Your task to perform on an android device: allow cookies in the chrome app Image 0: 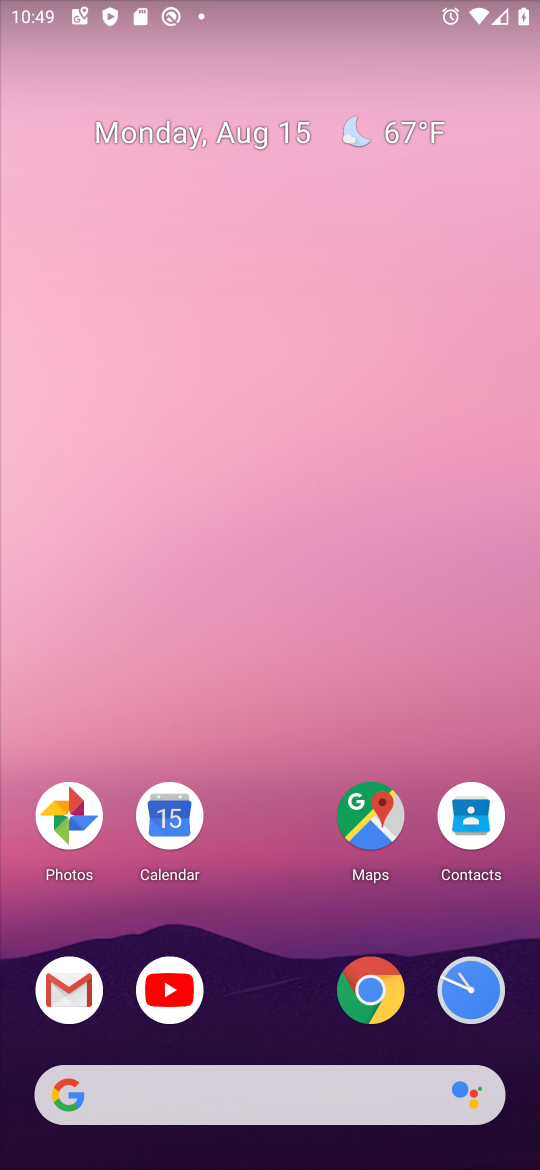
Step 0: click (370, 990)
Your task to perform on an android device: allow cookies in the chrome app Image 1: 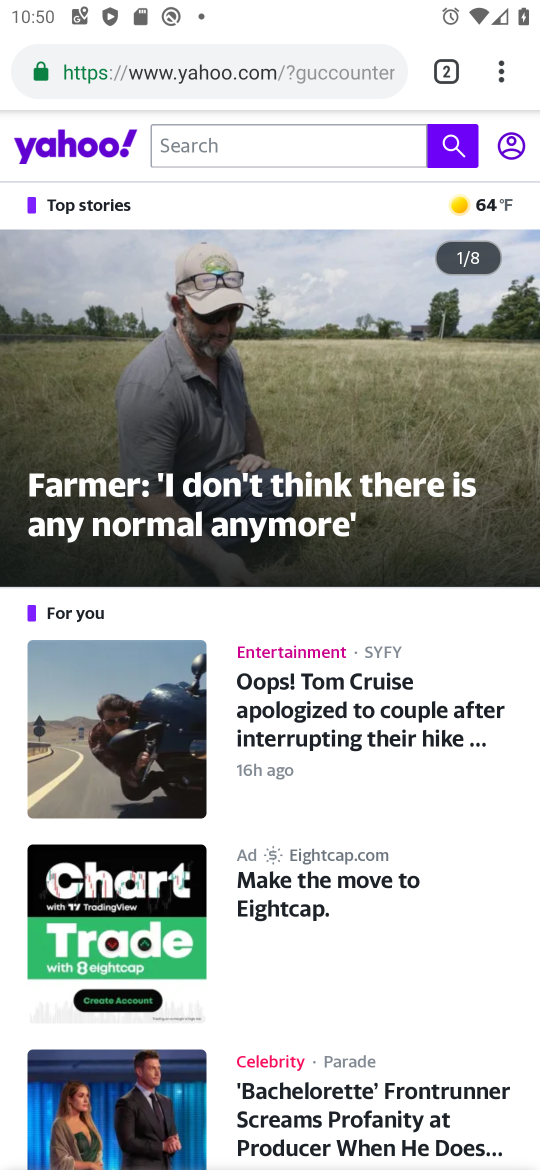
Step 1: click (510, 78)
Your task to perform on an android device: allow cookies in the chrome app Image 2: 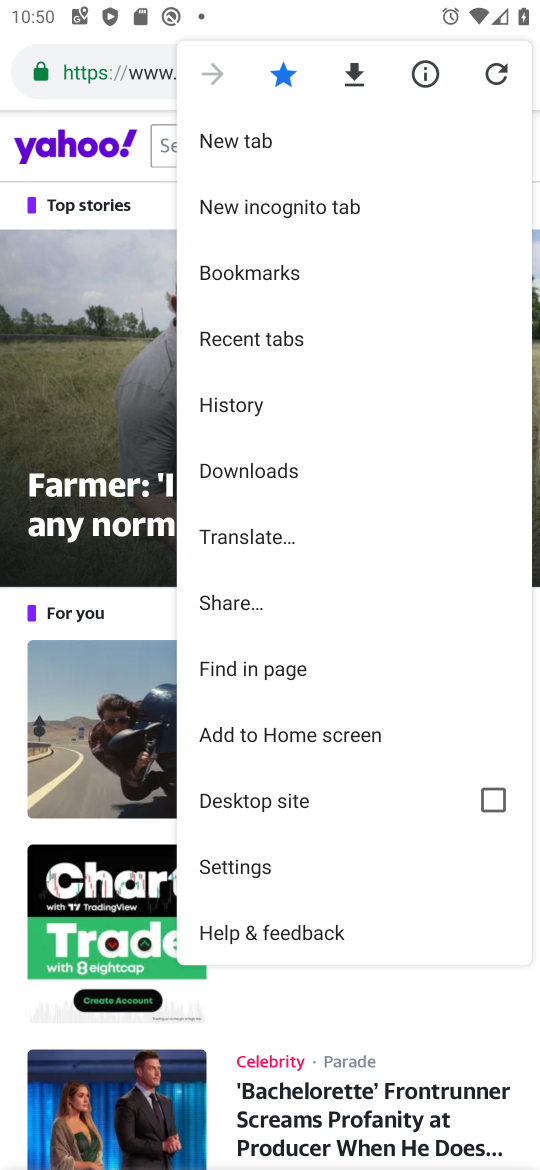
Step 2: click (262, 869)
Your task to perform on an android device: allow cookies in the chrome app Image 3: 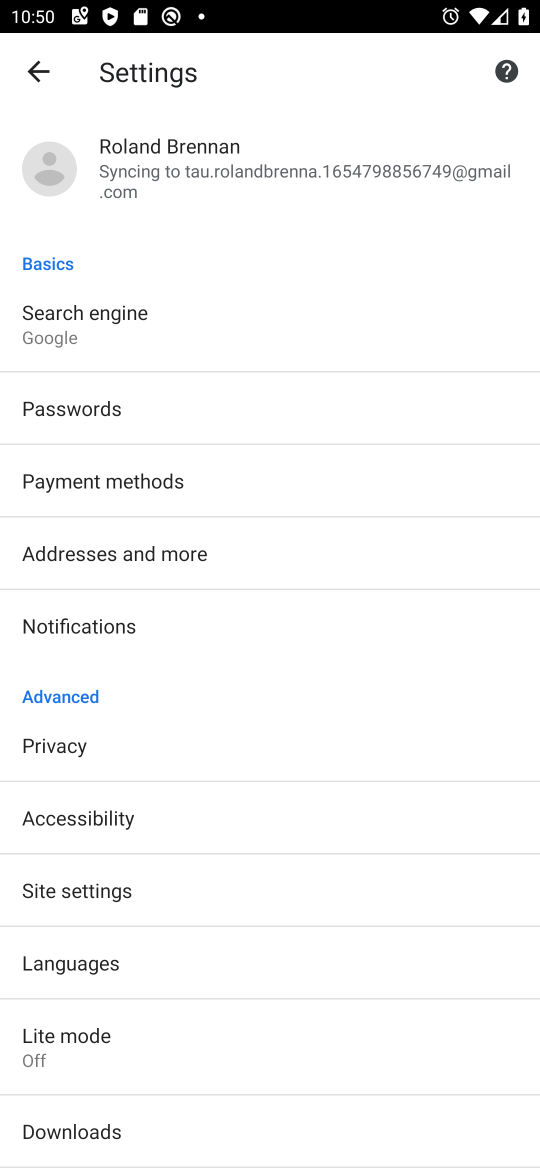
Step 3: drag from (327, 896) to (327, 538)
Your task to perform on an android device: allow cookies in the chrome app Image 4: 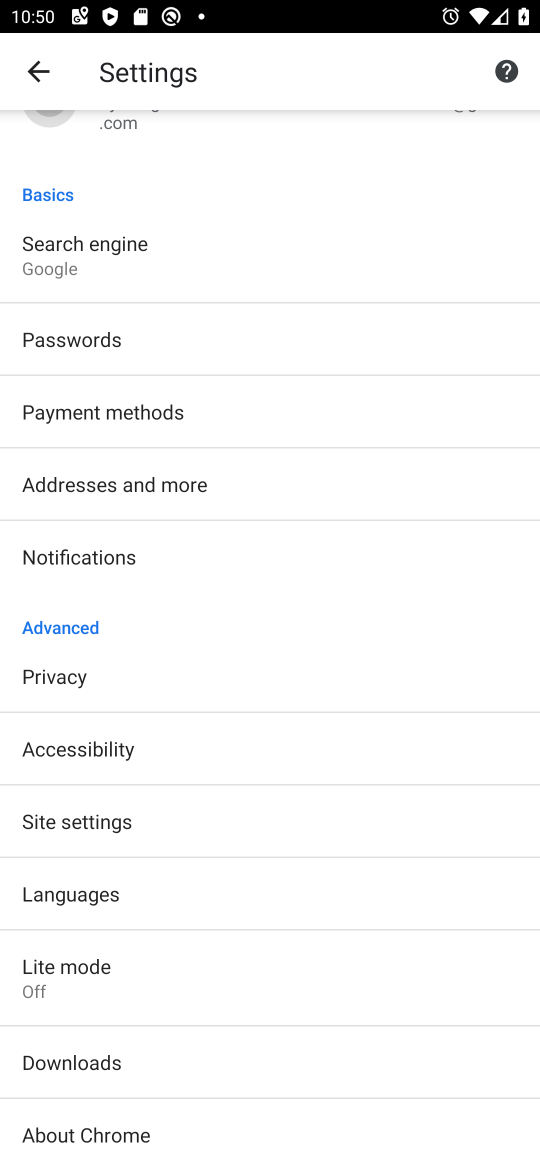
Step 4: click (89, 814)
Your task to perform on an android device: allow cookies in the chrome app Image 5: 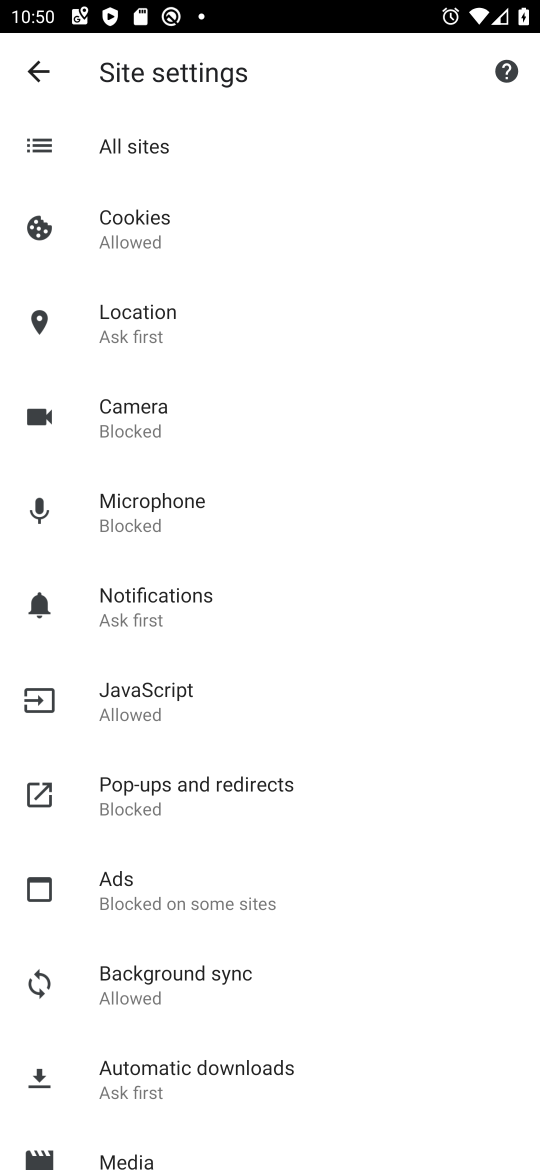
Step 5: click (133, 212)
Your task to perform on an android device: allow cookies in the chrome app Image 6: 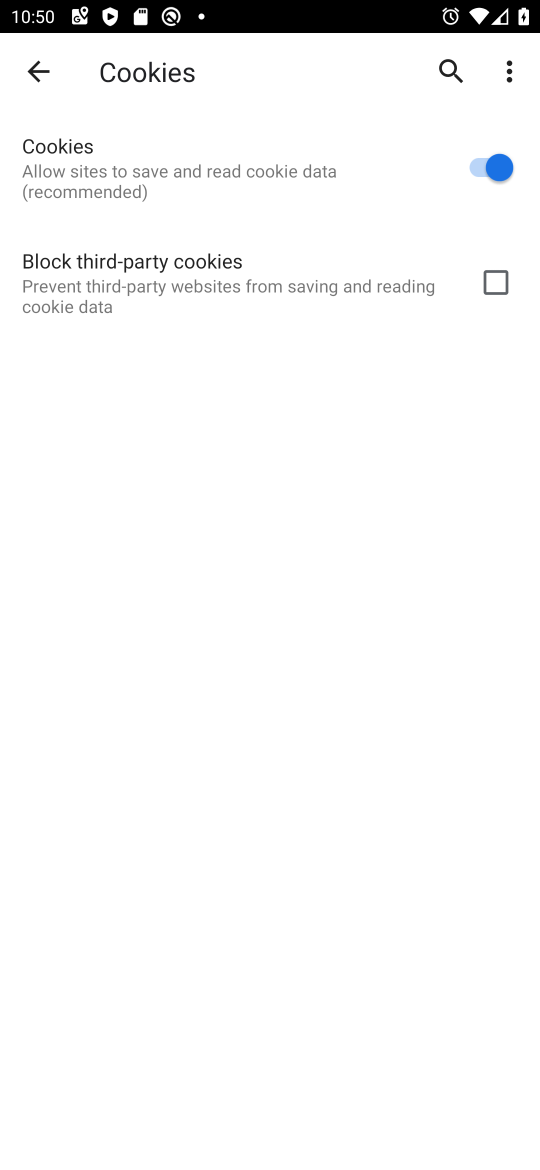
Step 6: task complete